Your task to perform on an android device: toggle pop-ups in chrome Image 0: 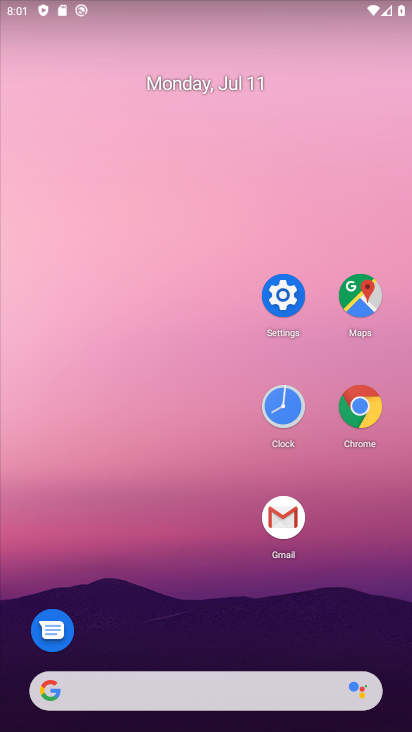
Step 0: click (363, 410)
Your task to perform on an android device: toggle pop-ups in chrome Image 1: 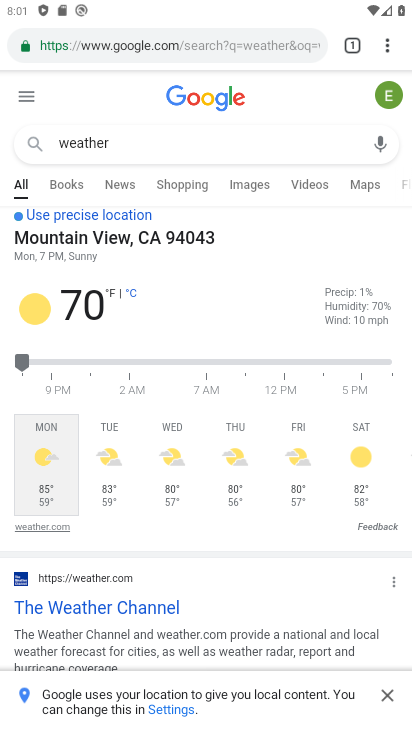
Step 1: click (391, 40)
Your task to perform on an android device: toggle pop-ups in chrome Image 2: 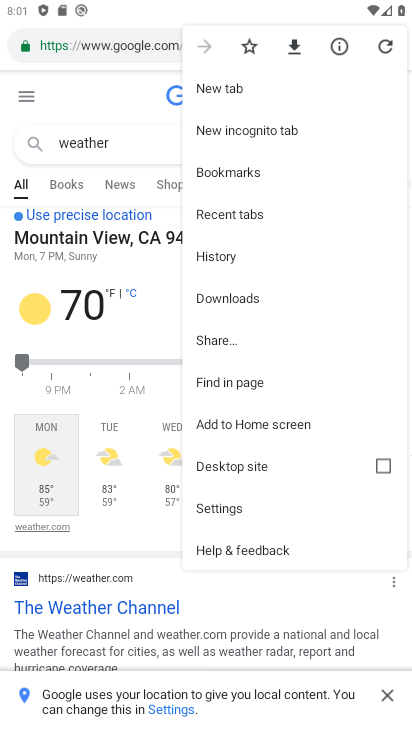
Step 2: click (246, 511)
Your task to perform on an android device: toggle pop-ups in chrome Image 3: 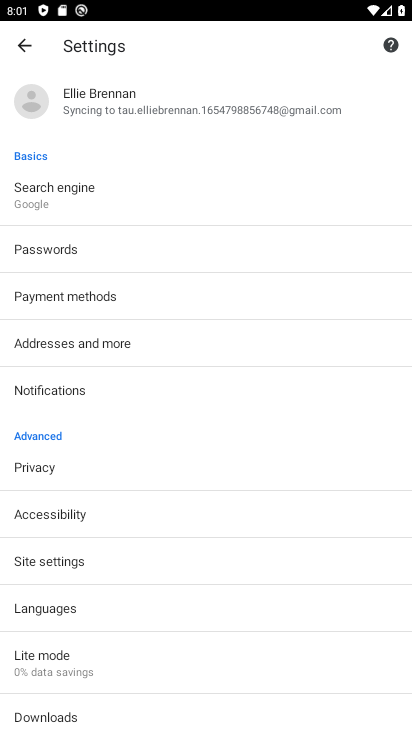
Step 3: click (75, 556)
Your task to perform on an android device: toggle pop-ups in chrome Image 4: 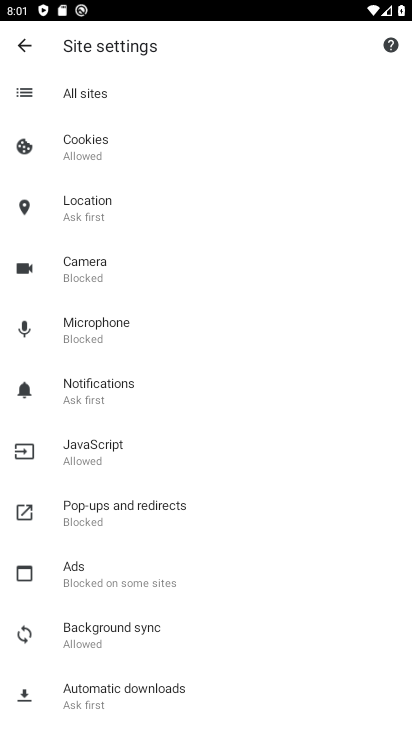
Step 4: drag from (143, 557) to (209, 194)
Your task to perform on an android device: toggle pop-ups in chrome Image 5: 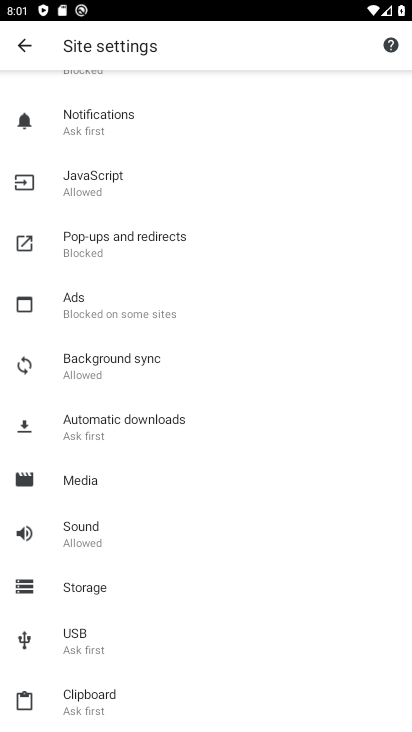
Step 5: click (177, 243)
Your task to perform on an android device: toggle pop-ups in chrome Image 6: 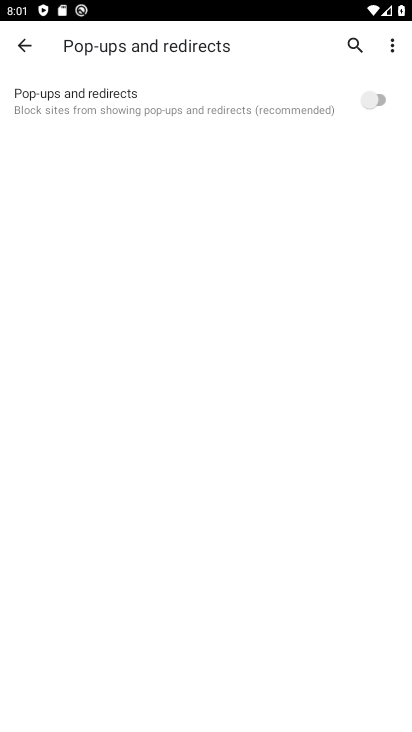
Step 6: click (368, 102)
Your task to perform on an android device: toggle pop-ups in chrome Image 7: 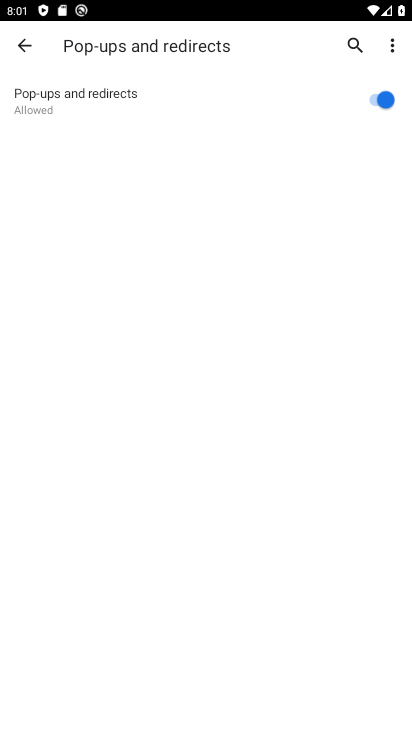
Step 7: task complete